Your task to perform on an android device: toggle priority inbox in the gmail app Image 0: 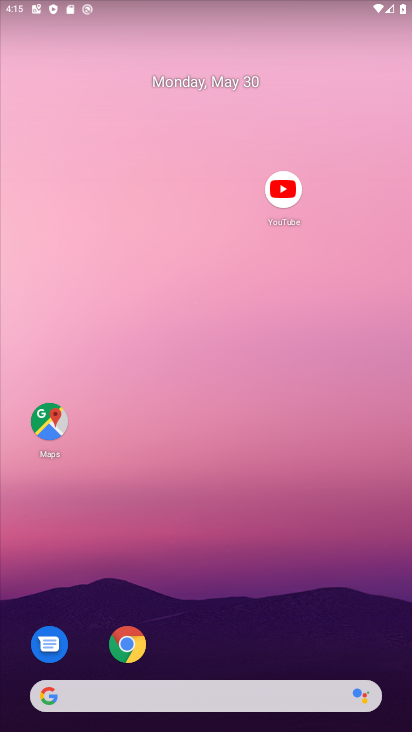
Step 0: drag from (212, 628) to (191, 60)
Your task to perform on an android device: toggle priority inbox in the gmail app Image 1: 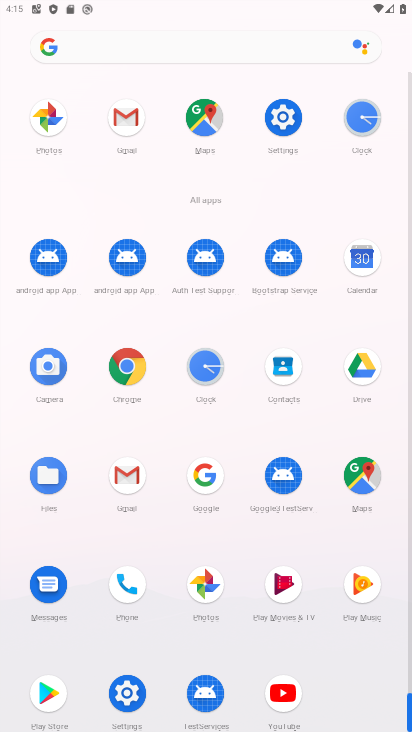
Step 1: click (130, 104)
Your task to perform on an android device: toggle priority inbox in the gmail app Image 2: 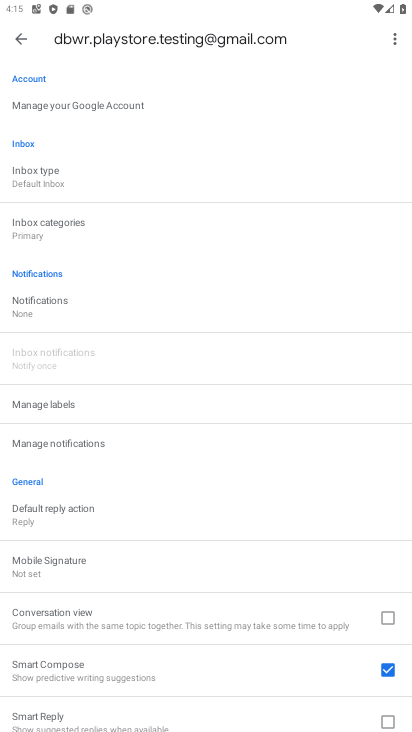
Step 2: click (65, 228)
Your task to perform on an android device: toggle priority inbox in the gmail app Image 3: 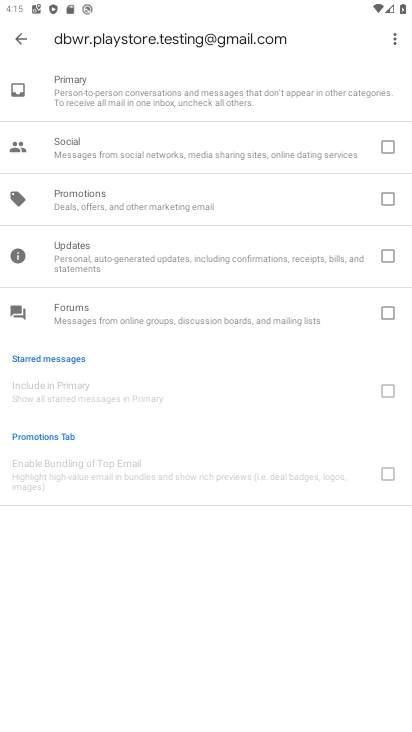
Step 3: click (21, 31)
Your task to perform on an android device: toggle priority inbox in the gmail app Image 4: 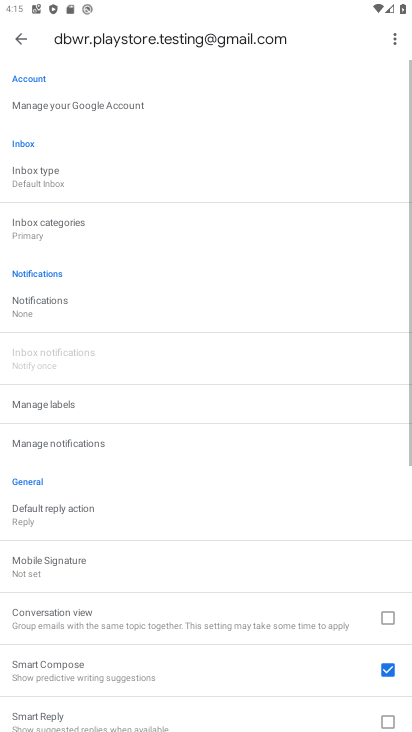
Step 4: click (91, 188)
Your task to perform on an android device: toggle priority inbox in the gmail app Image 5: 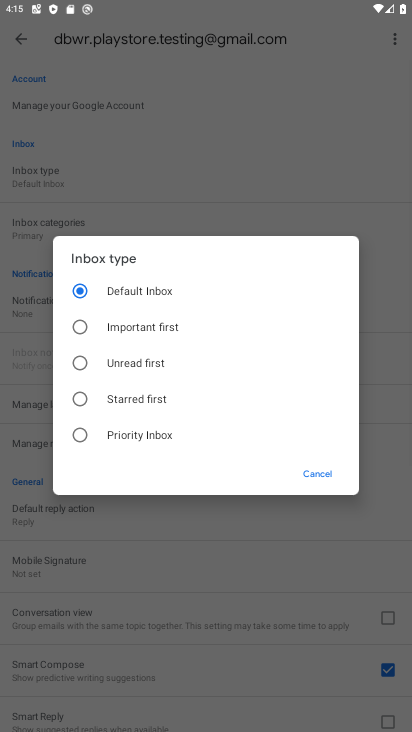
Step 5: click (111, 358)
Your task to perform on an android device: toggle priority inbox in the gmail app Image 6: 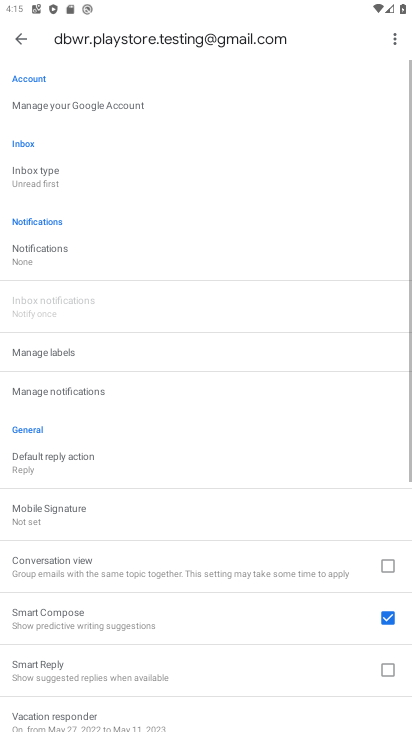
Step 6: task complete